Your task to perform on an android device: change alarm snooze length Image 0: 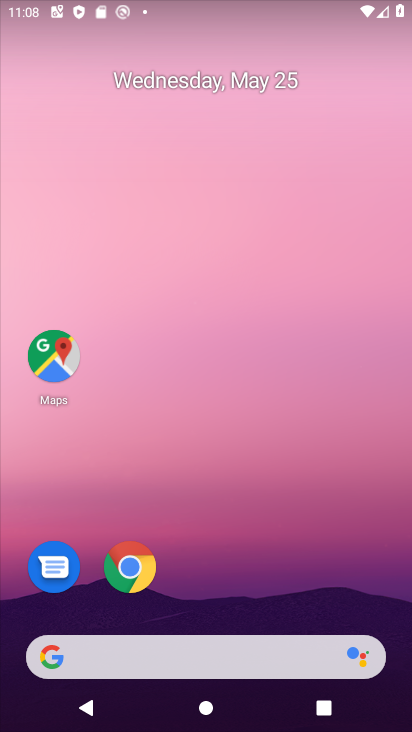
Step 0: drag from (242, 614) to (251, 135)
Your task to perform on an android device: change alarm snooze length Image 1: 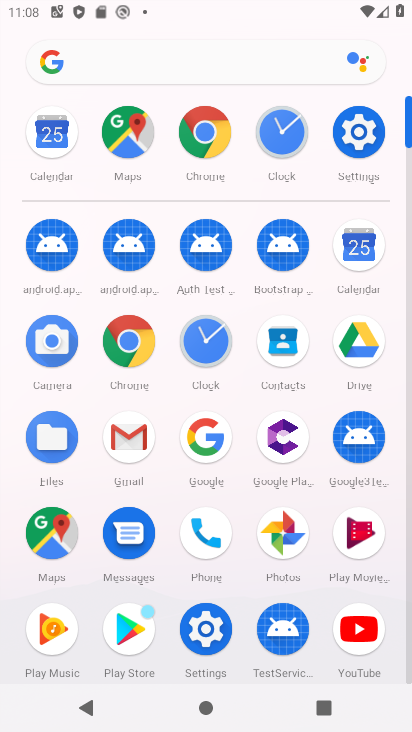
Step 1: click (206, 339)
Your task to perform on an android device: change alarm snooze length Image 2: 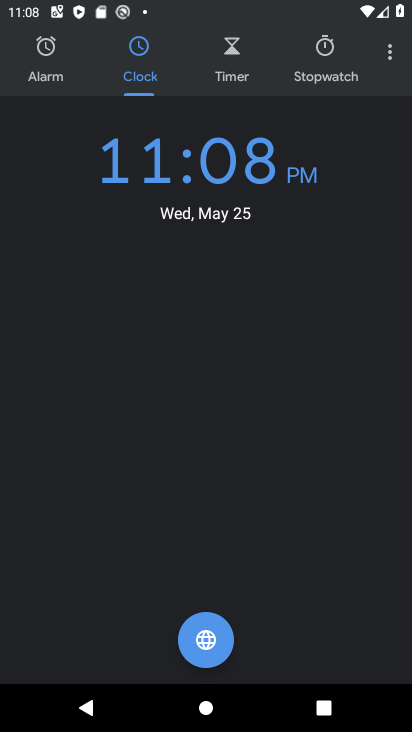
Step 2: click (396, 69)
Your task to perform on an android device: change alarm snooze length Image 3: 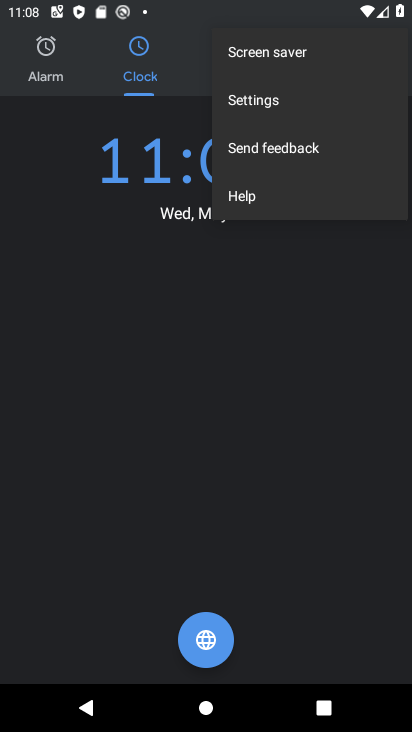
Step 3: click (251, 111)
Your task to perform on an android device: change alarm snooze length Image 4: 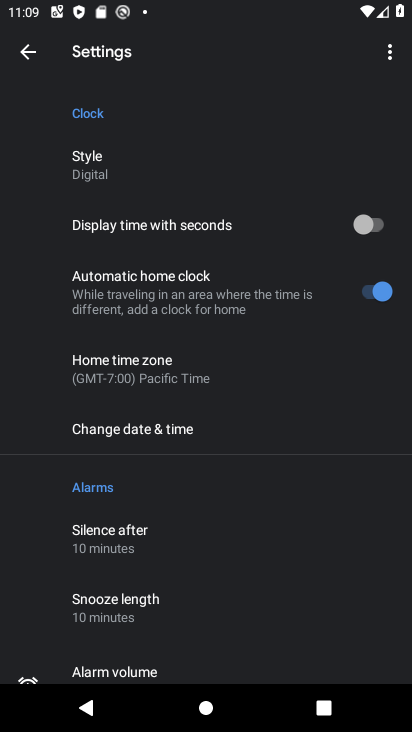
Step 4: drag from (151, 552) to (213, 256)
Your task to perform on an android device: change alarm snooze length Image 5: 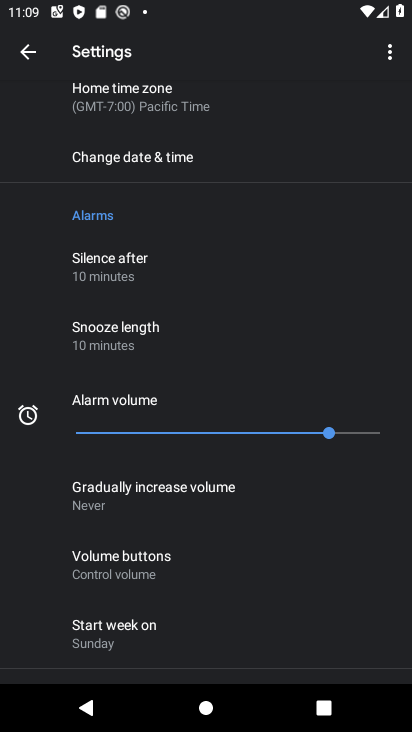
Step 5: drag from (152, 620) to (200, 333)
Your task to perform on an android device: change alarm snooze length Image 6: 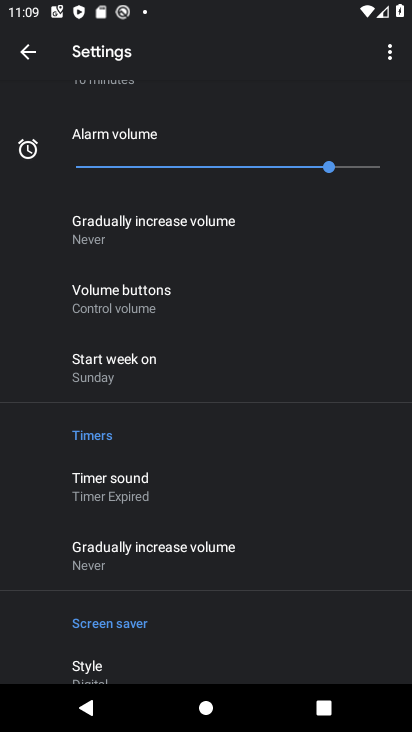
Step 6: drag from (172, 388) to (203, 693)
Your task to perform on an android device: change alarm snooze length Image 7: 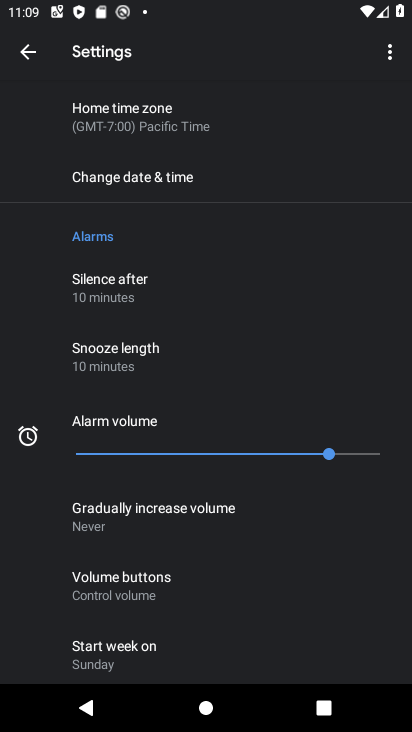
Step 7: click (164, 361)
Your task to perform on an android device: change alarm snooze length Image 8: 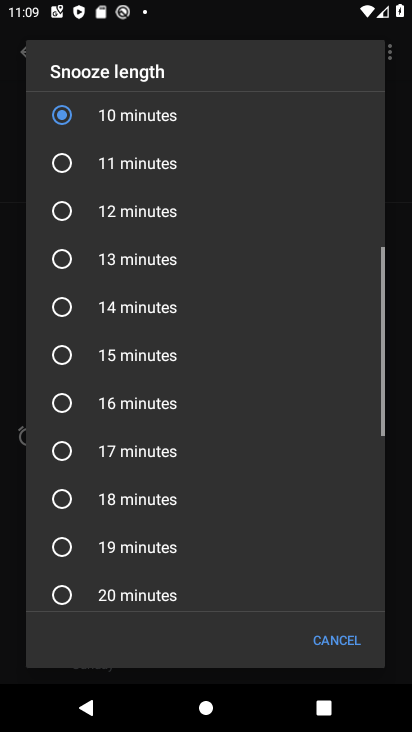
Step 8: click (164, 361)
Your task to perform on an android device: change alarm snooze length Image 9: 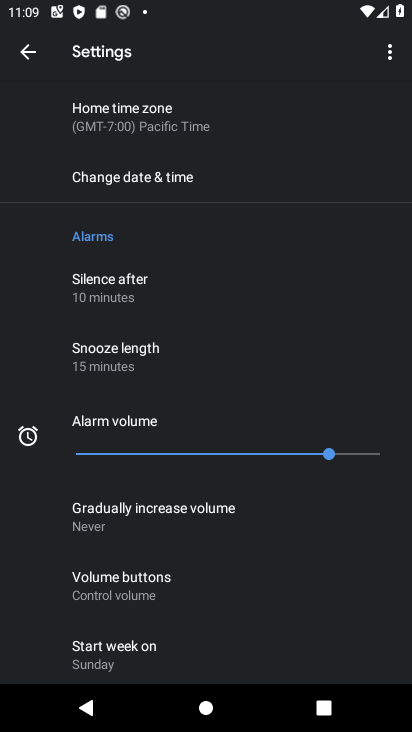
Step 9: task complete